Your task to perform on an android device: Turn off the flashlight Image 0: 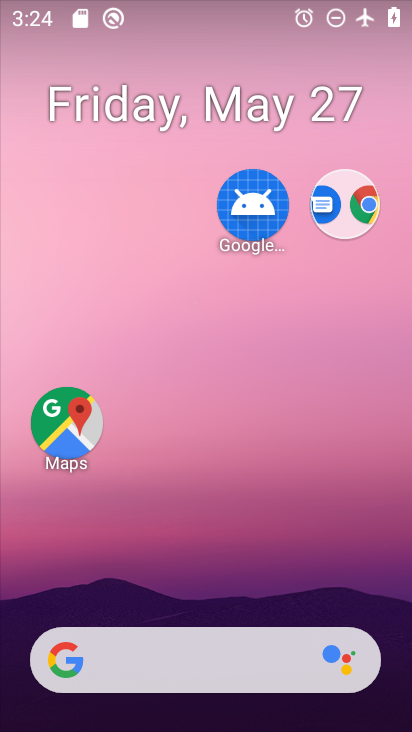
Step 0: drag from (262, 43) to (292, 396)
Your task to perform on an android device: Turn off the flashlight Image 1: 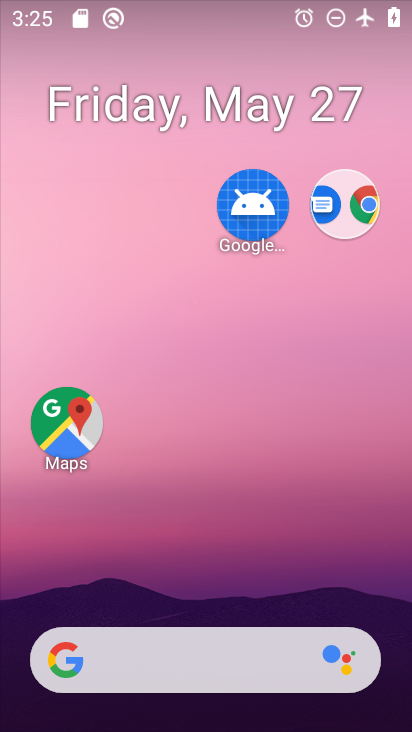
Step 1: task complete